Your task to perform on an android device: Open notification settings Image 0: 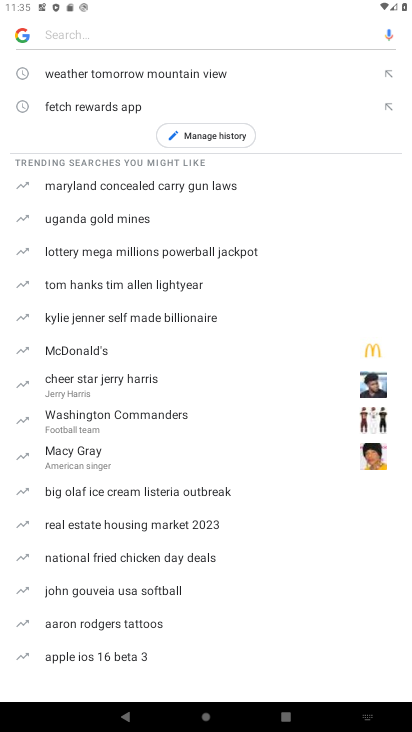
Step 0: press home button
Your task to perform on an android device: Open notification settings Image 1: 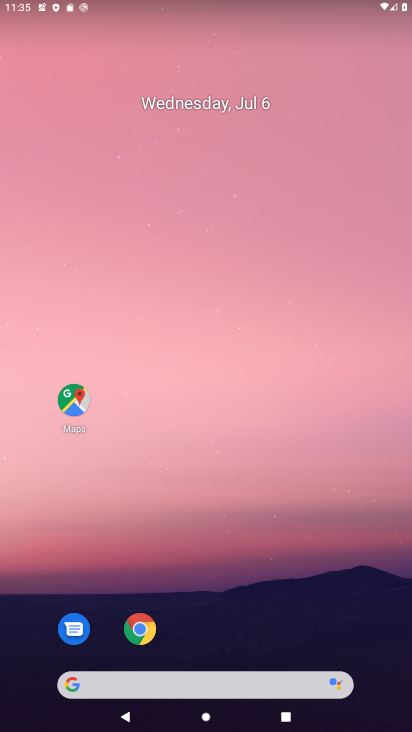
Step 1: drag from (203, 600) to (145, 135)
Your task to perform on an android device: Open notification settings Image 2: 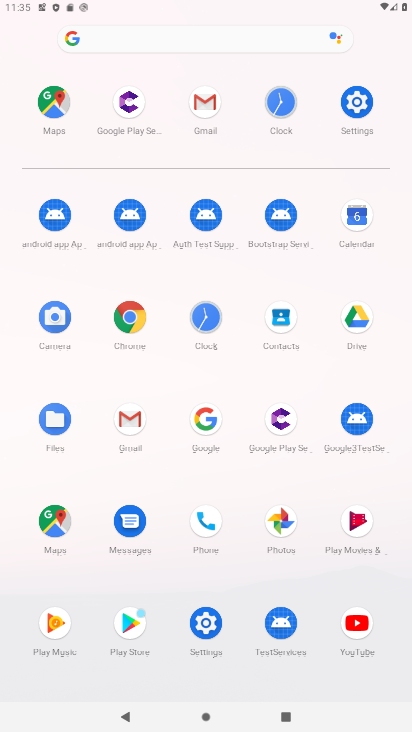
Step 2: click (338, 111)
Your task to perform on an android device: Open notification settings Image 3: 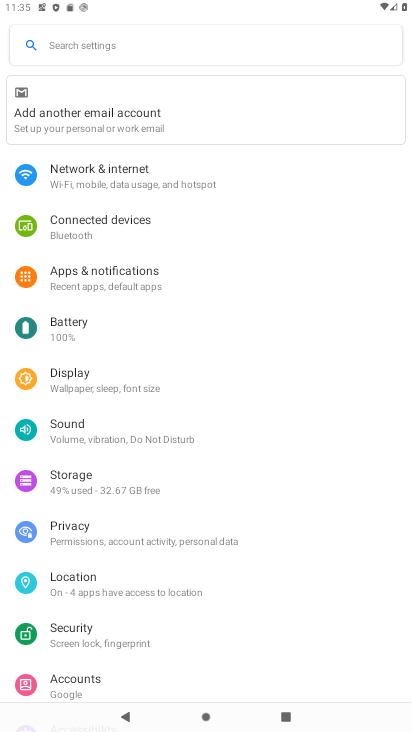
Step 3: click (171, 282)
Your task to perform on an android device: Open notification settings Image 4: 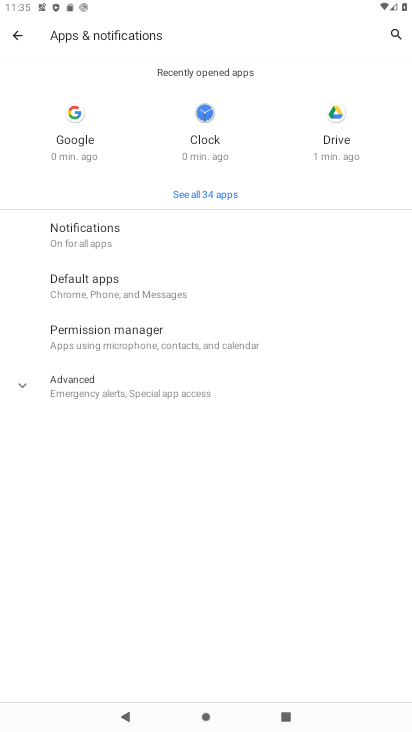
Step 4: click (147, 252)
Your task to perform on an android device: Open notification settings Image 5: 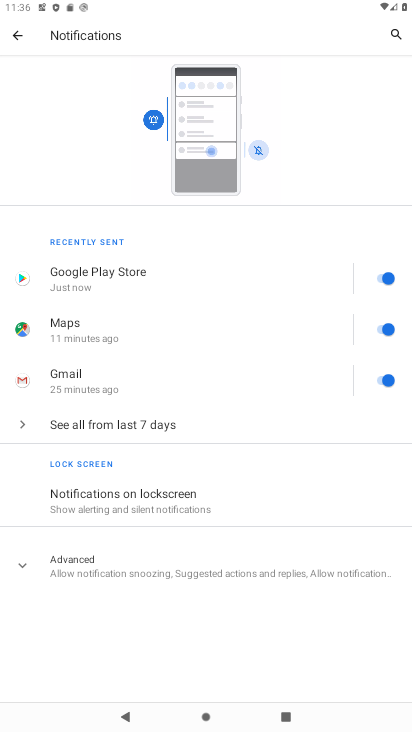
Step 5: task complete